Your task to perform on an android device: manage bookmarks in the chrome app Image 0: 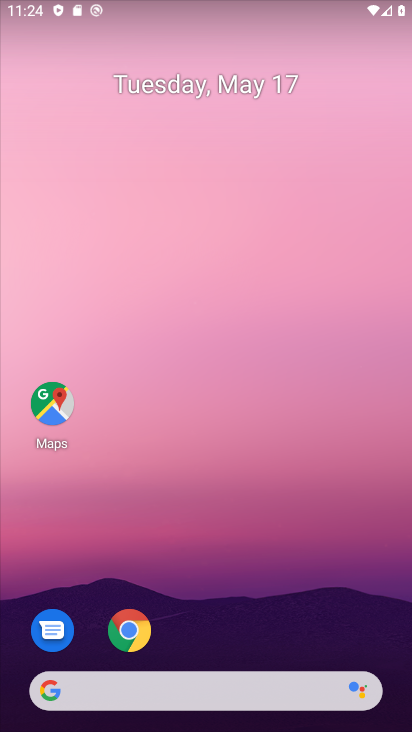
Step 0: click (122, 638)
Your task to perform on an android device: manage bookmarks in the chrome app Image 1: 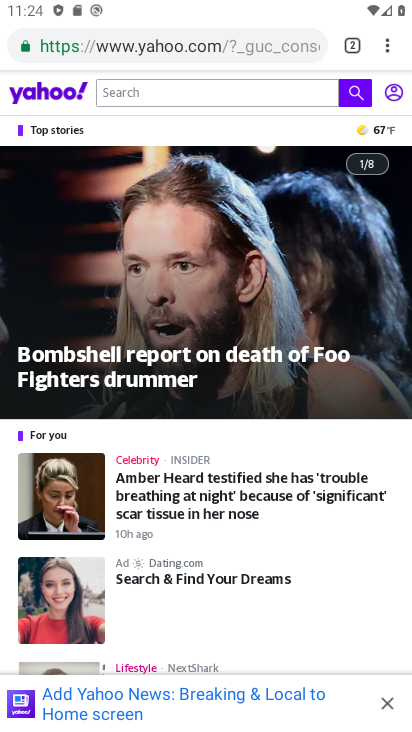
Step 1: task complete